Your task to perform on an android device: check google app version Image 0: 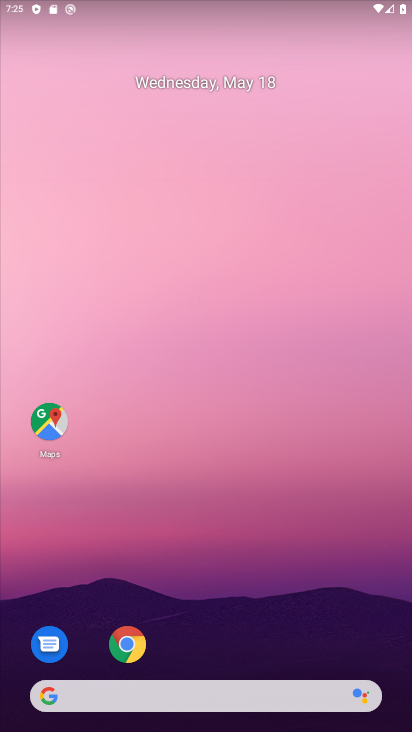
Step 0: drag from (247, 724) to (319, 151)
Your task to perform on an android device: check google app version Image 1: 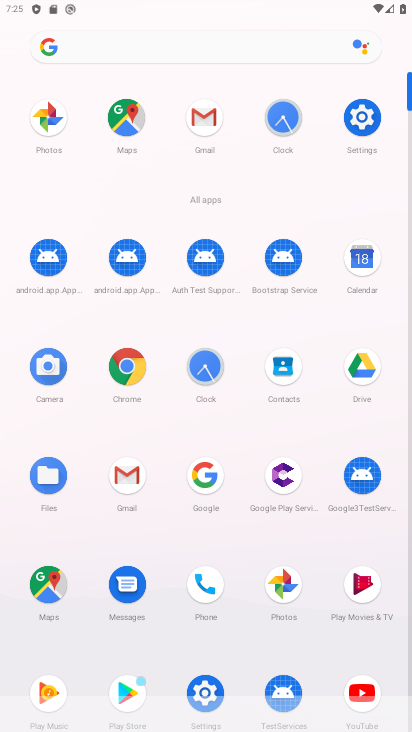
Step 1: click (128, 376)
Your task to perform on an android device: check google app version Image 2: 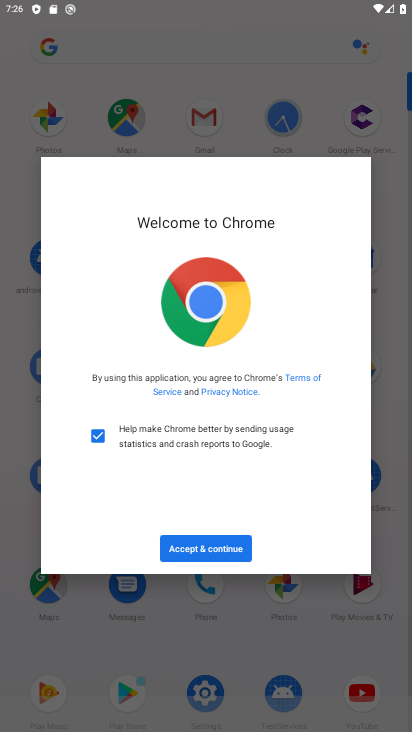
Step 2: click (206, 548)
Your task to perform on an android device: check google app version Image 3: 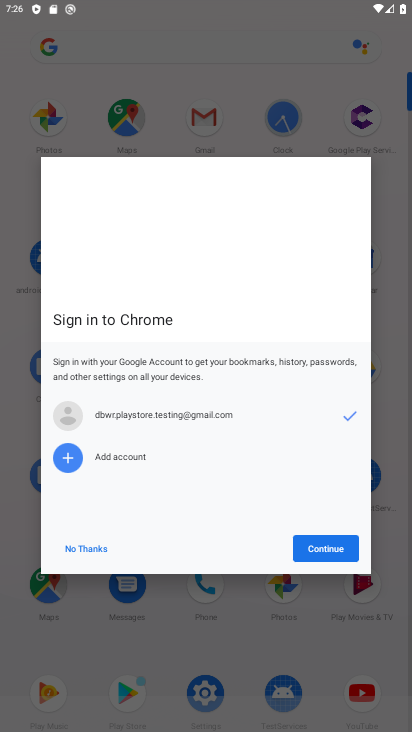
Step 3: click (336, 546)
Your task to perform on an android device: check google app version Image 4: 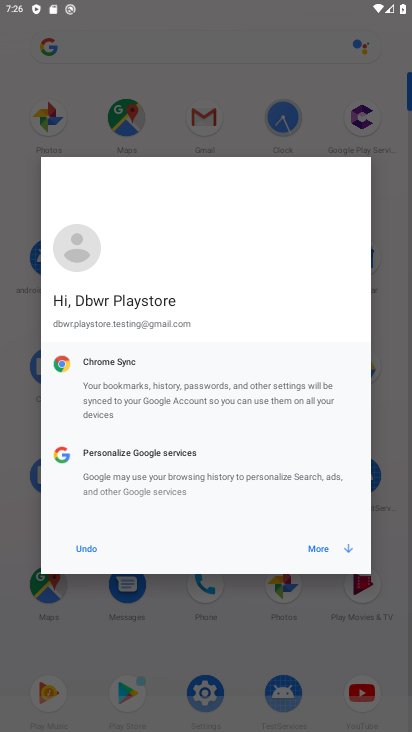
Step 4: click (328, 544)
Your task to perform on an android device: check google app version Image 5: 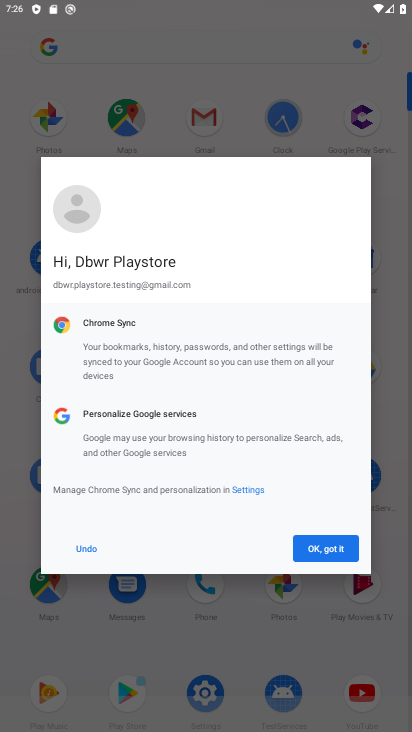
Step 5: click (328, 544)
Your task to perform on an android device: check google app version Image 6: 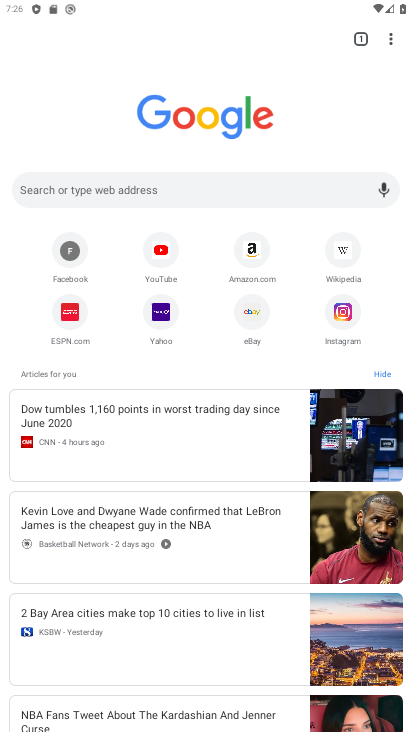
Step 6: click (385, 49)
Your task to perform on an android device: check google app version Image 7: 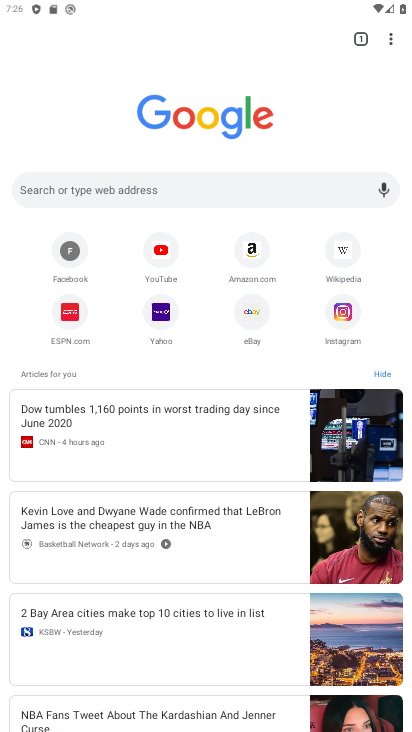
Step 7: click (395, 55)
Your task to perform on an android device: check google app version Image 8: 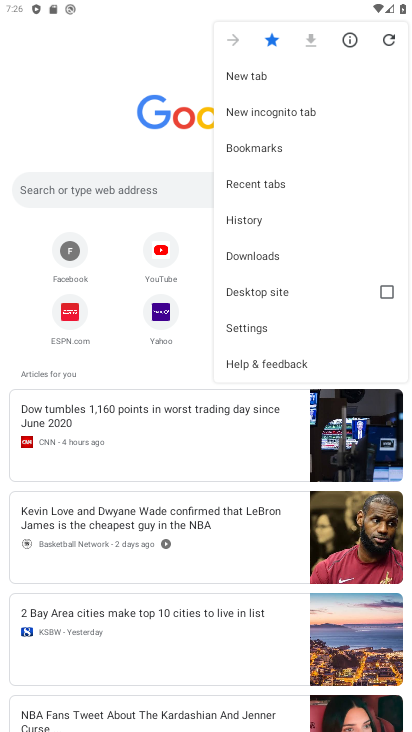
Step 8: click (268, 318)
Your task to perform on an android device: check google app version Image 9: 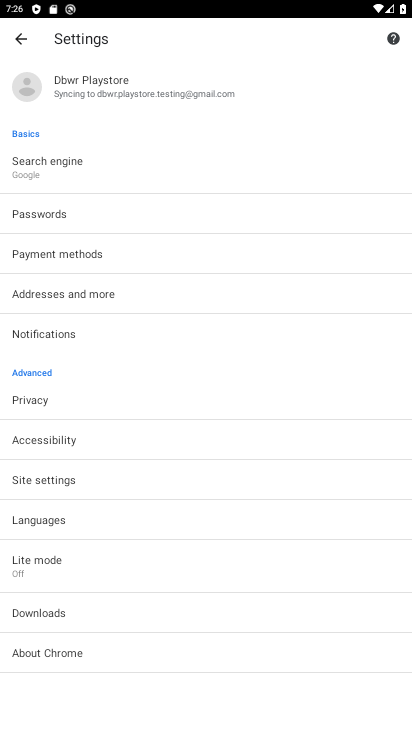
Step 9: drag from (124, 523) to (271, 193)
Your task to perform on an android device: check google app version Image 10: 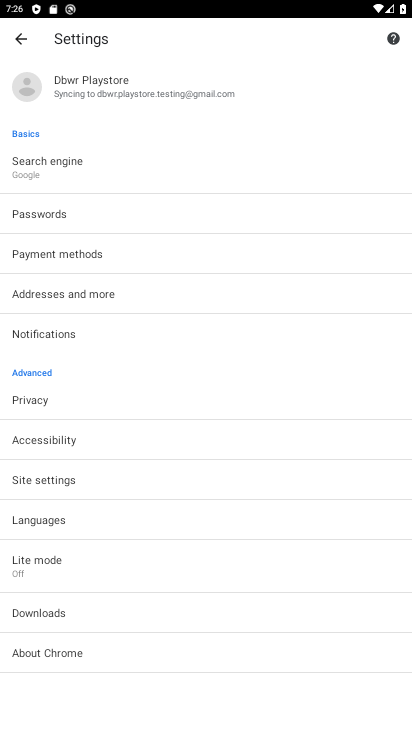
Step 10: click (27, 659)
Your task to perform on an android device: check google app version Image 11: 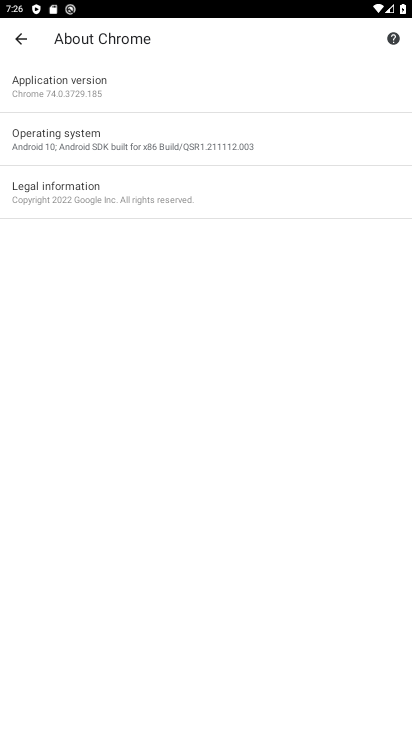
Step 11: click (129, 93)
Your task to perform on an android device: check google app version Image 12: 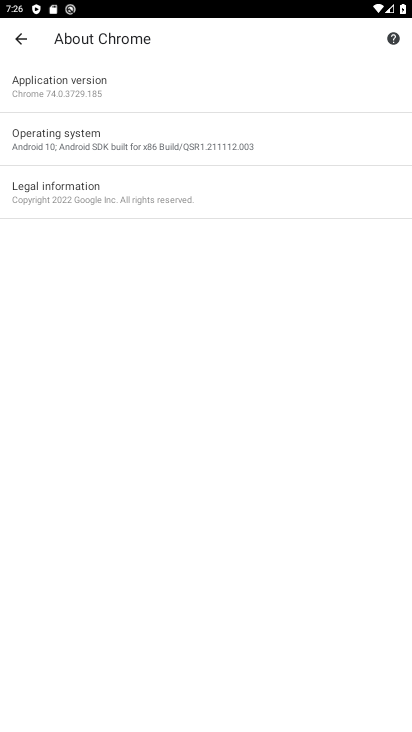
Step 12: task complete